Your task to perform on an android device: change timer sound Image 0: 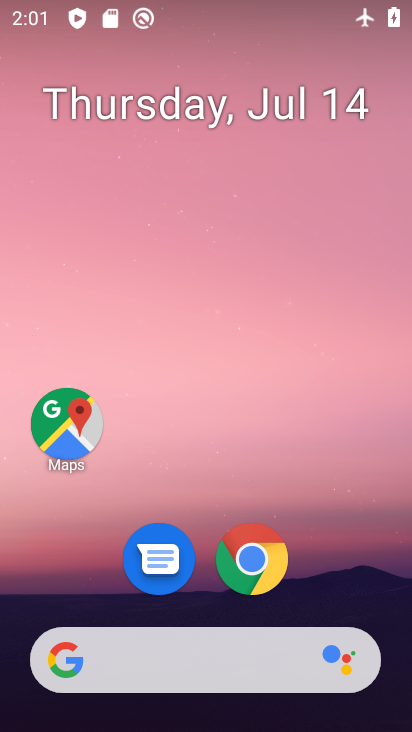
Step 0: drag from (241, 605) to (267, 190)
Your task to perform on an android device: change timer sound Image 1: 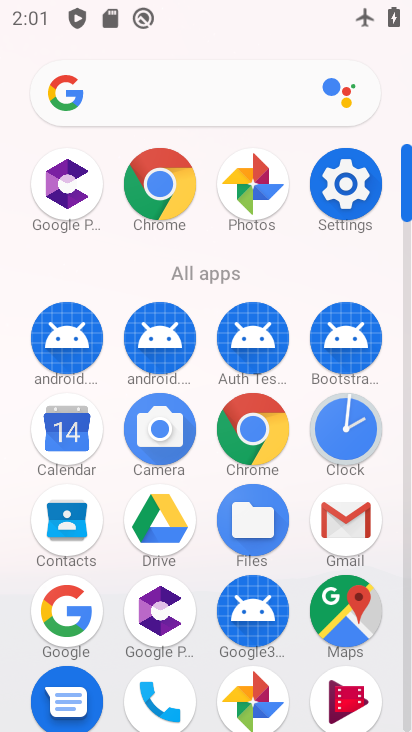
Step 1: click (338, 204)
Your task to perform on an android device: change timer sound Image 2: 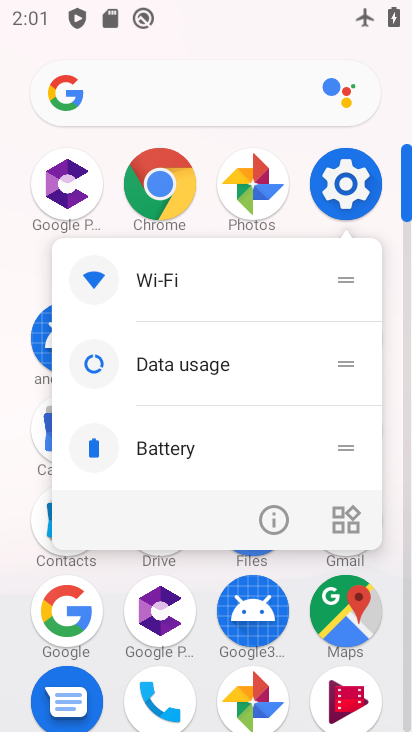
Step 2: click (19, 287)
Your task to perform on an android device: change timer sound Image 3: 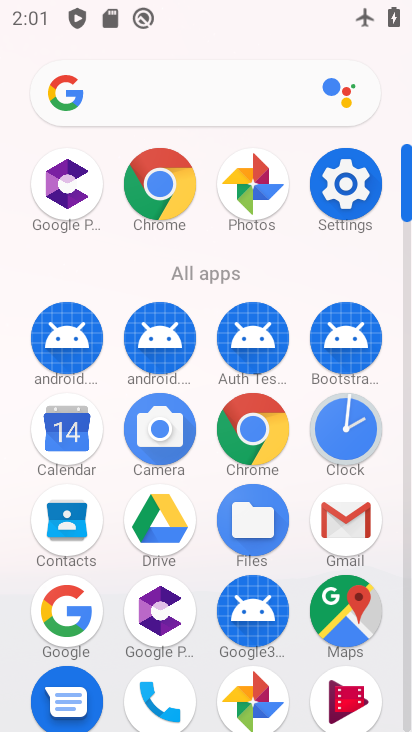
Step 3: click (354, 456)
Your task to perform on an android device: change timer sound Image 4: 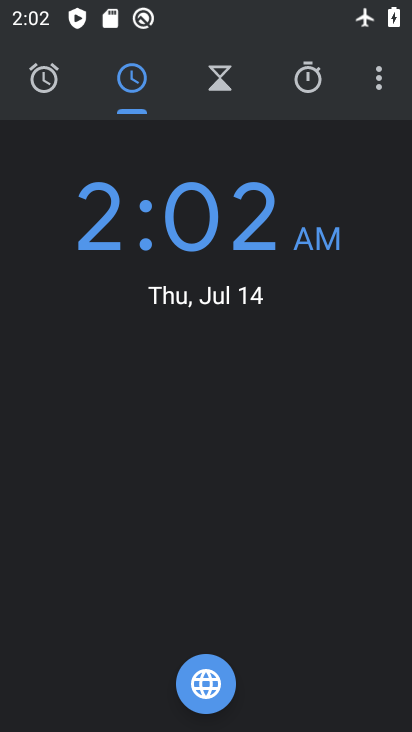
Step 4: click (374, 88)
Your task to perform on an android device: change timer sound Image 5: 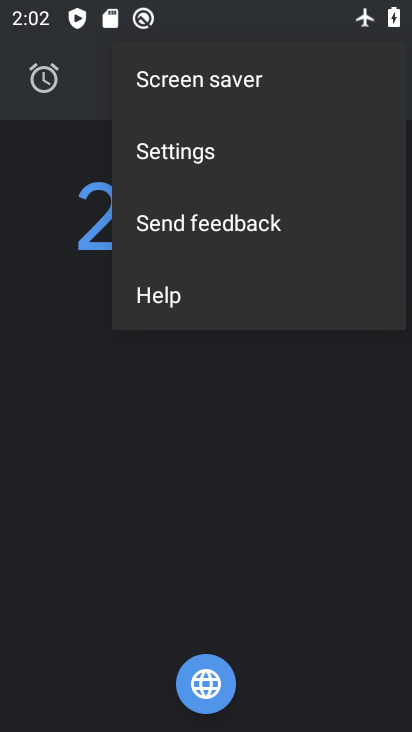
Step 5: click (190, 153)
Your task to perform on an android device: change timer sound Image 6: 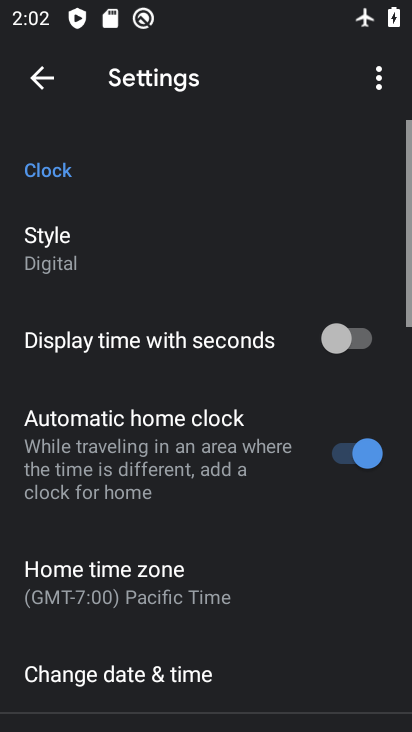
Step 6: drag from (183, 514) to (251, 144)
Your task to perform on an android device: change timer sound Image 7: 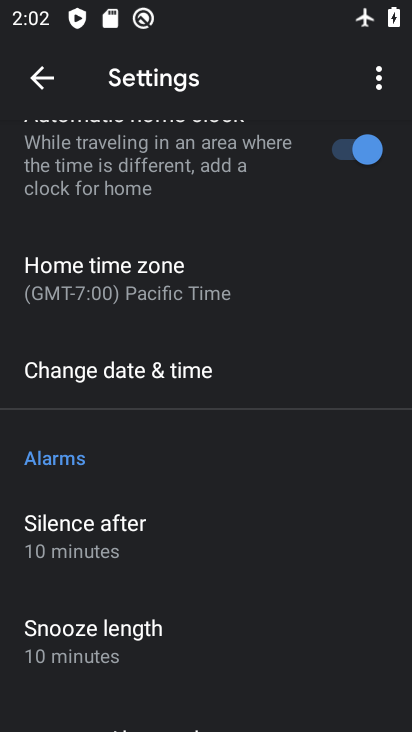
Step 7: drag from (172, 544) to (226, 178)
Your task to perform on an android device: change timer sound Image 8: 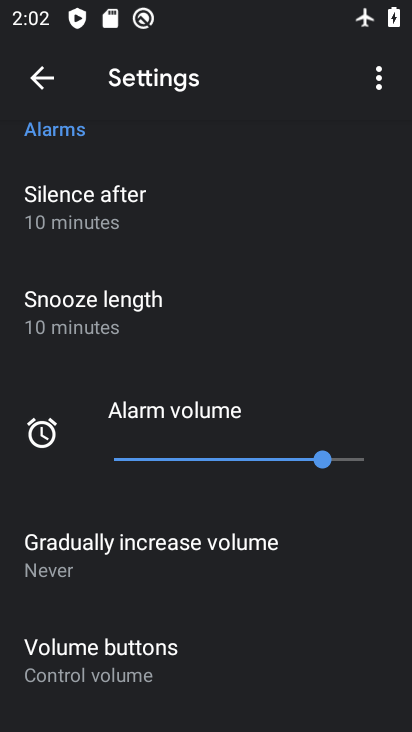
Step 8: drag from (142, 620) to (238, 276)
Your task to perform on an android device: change timer sound Image 9: 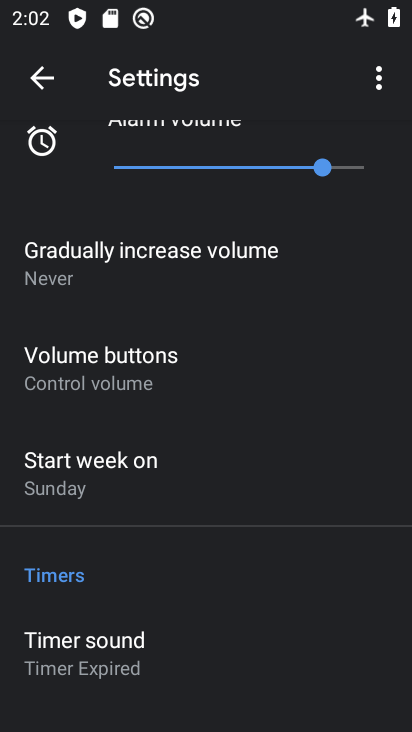
Step 9: drag from (140, 591) to (208, 335)
Your task to perform on an android device: change timer sound Image 10: 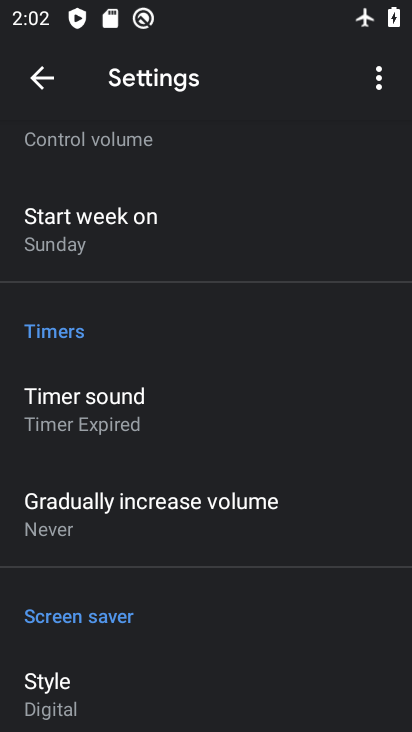
Step 10: click (107, 414)
Your task to perform on an android device: change timer sound Image 11: 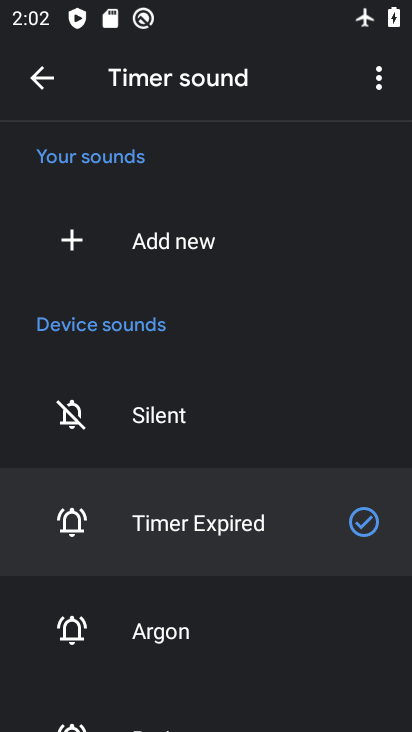
Step 11: click (176, 633)
Your task to perform on an android device: change timer sound Image 12: 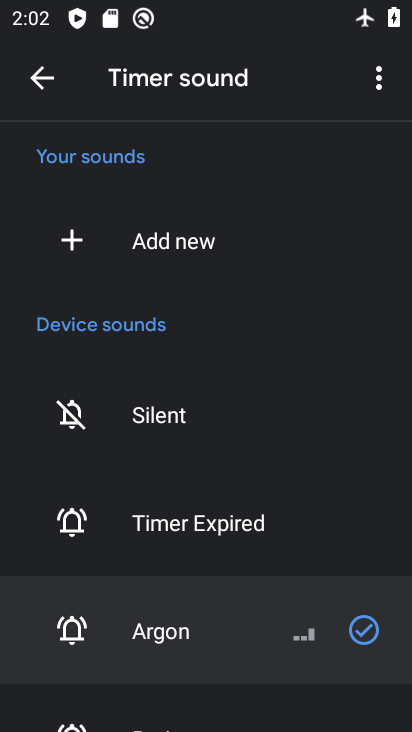
Step 12: task complete